Your task to perform on an android device: open a new tab in the chrome app Image 0: 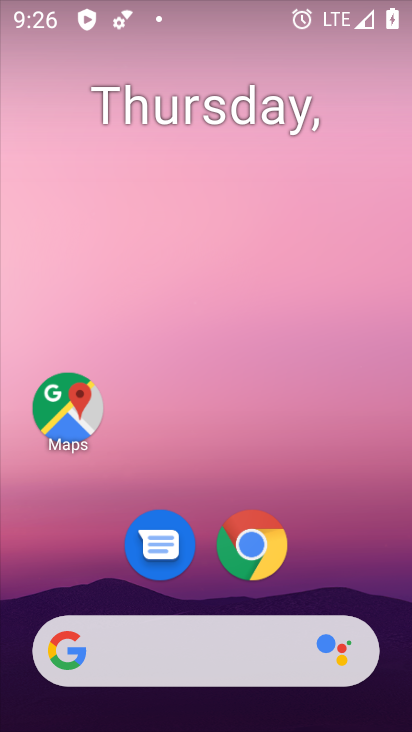
Step 0: click (252, 542)
Your task to perform on an android device: open a new tab in the chrome app Image 1: 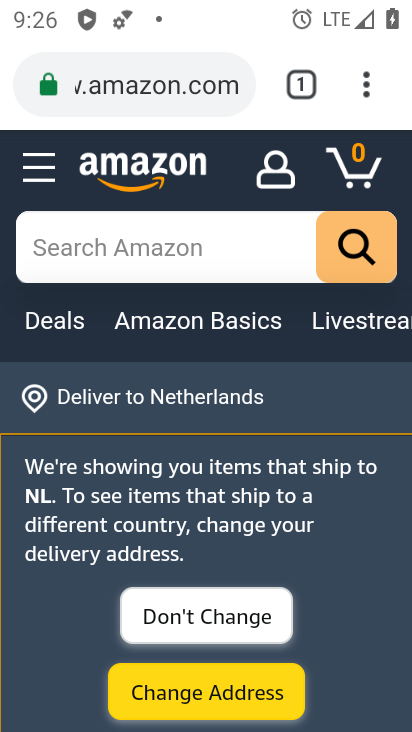
Step 1: click (368, 89)
Your task to perform on an android device: open a new tab in the chrome app Image 2: 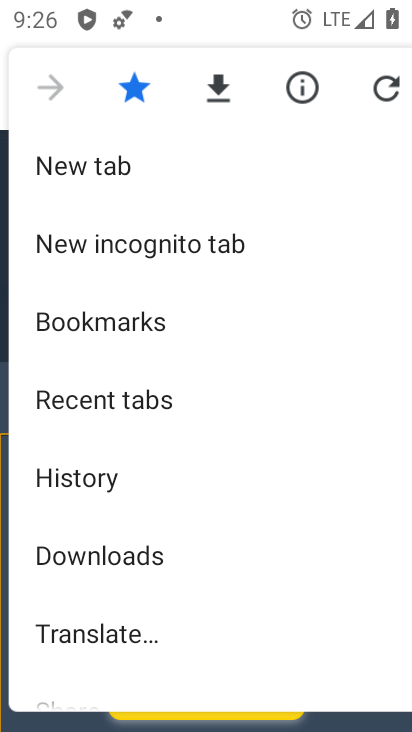
Step 2: click (98, 168)
Your task to perform on an android device: open a new tab in the chrome app Image 3: 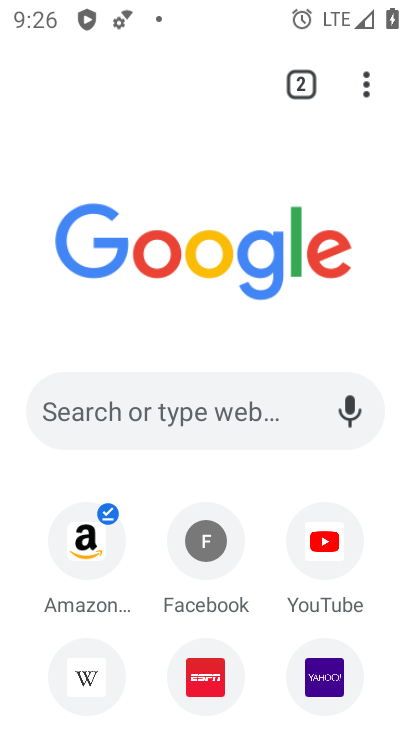
Step 3: task complete